Your task to perform on an android device: toggle wifi Image 0: 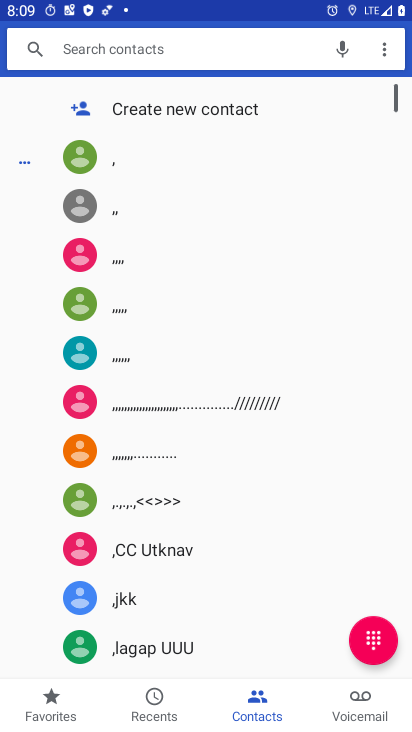
Step 0: press home button
Your task to perform on an android device: toggle wifi Image 1: 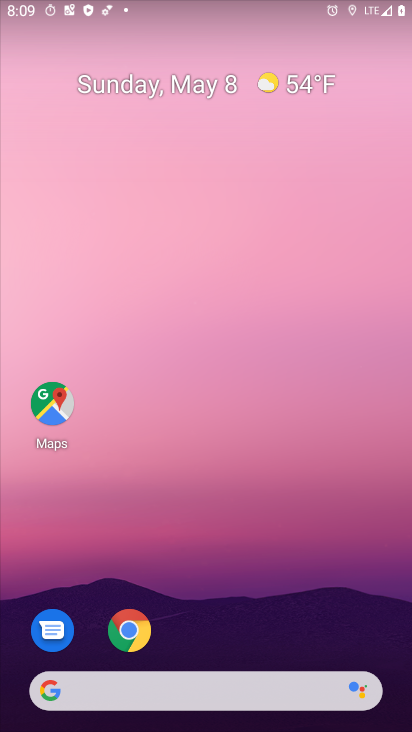
Step 1: drag from (182, 657) to (234, 2)
Your task to perform on an android device: toggle wifi Image 2: 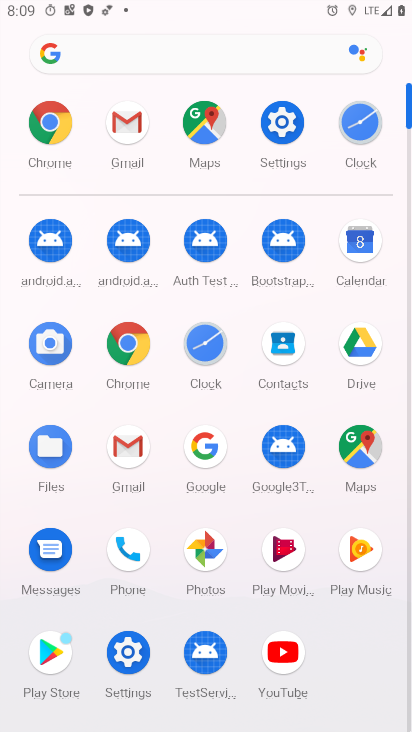
Step 2: click (285, 125)
Your task to perform on an android device: toggle wifi Image 3: 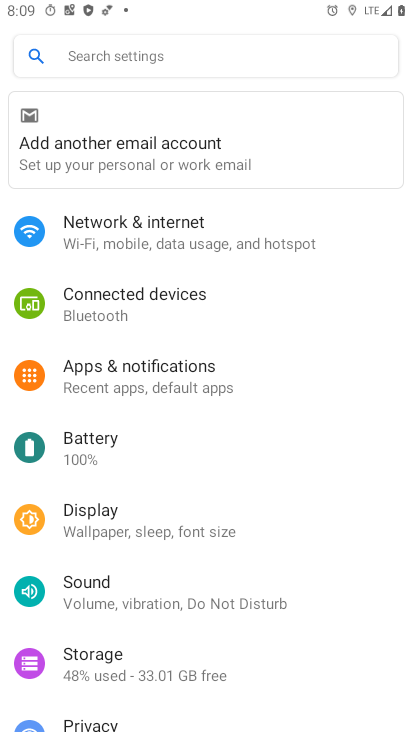
Step 3: click (124, 239)
Your task to perform on an android device: toggle wifi Image 4: 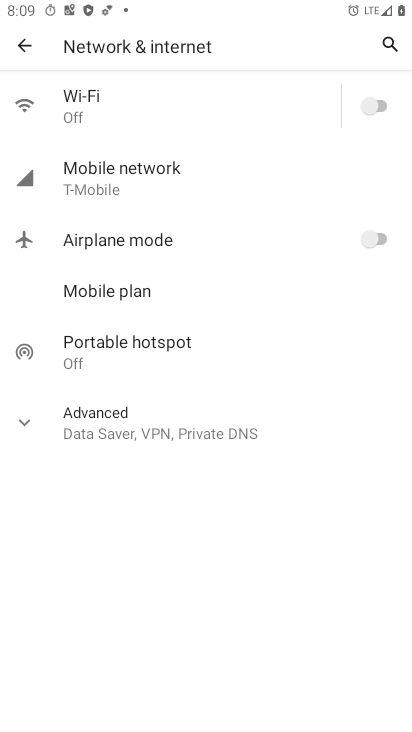
Step 4: click (144, 95)
Your task to perform on an android device: toggle wifi Image 5: 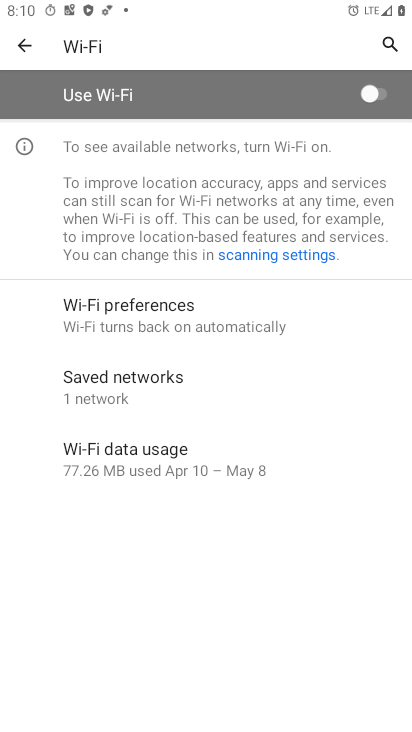
Step 5: task complete